Your task to perform on an android device: Go to Wikipedia Image 0: 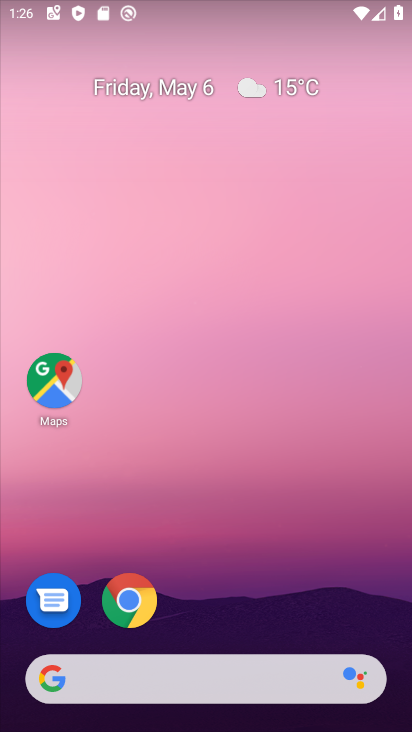
Step 0: drag from (338, 616) to (252, 127)
Your task to perform on an android device: Go to Wikipedia Image 1: 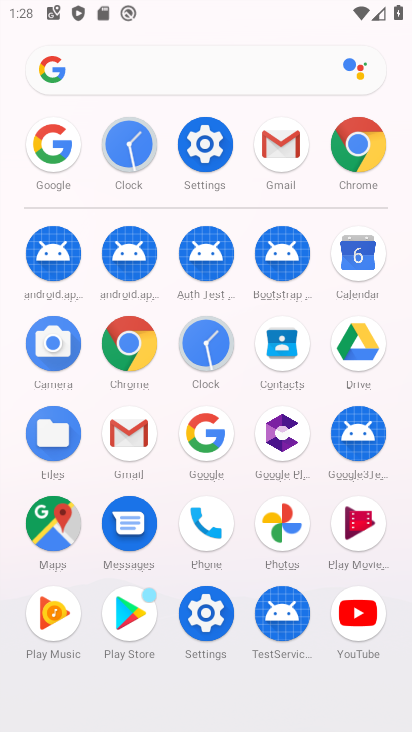
Step 1: click (193, 424)
Your task to perform on an android device: Go to Wikipedia Image 2: 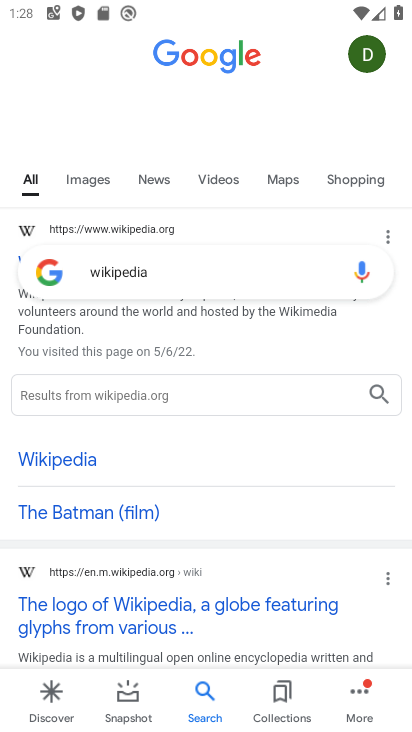
Step 2: click (14, 259)
Your task to perform on an android device: Go to Wikipedia Image 3: 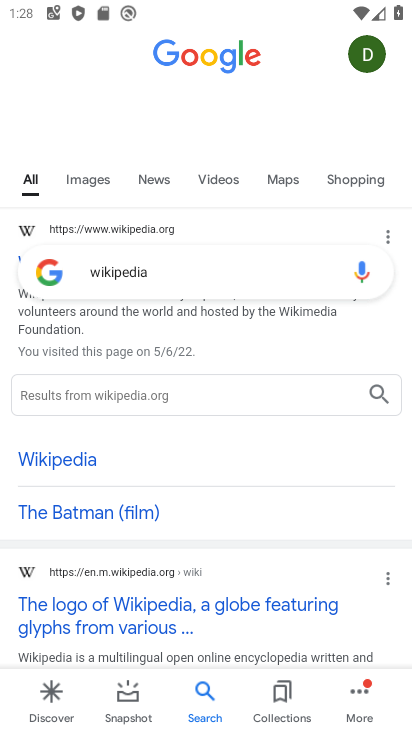
Step 3: click (103, 281)
Your task to perform on an android device: Go to Wikipedia Image 4: 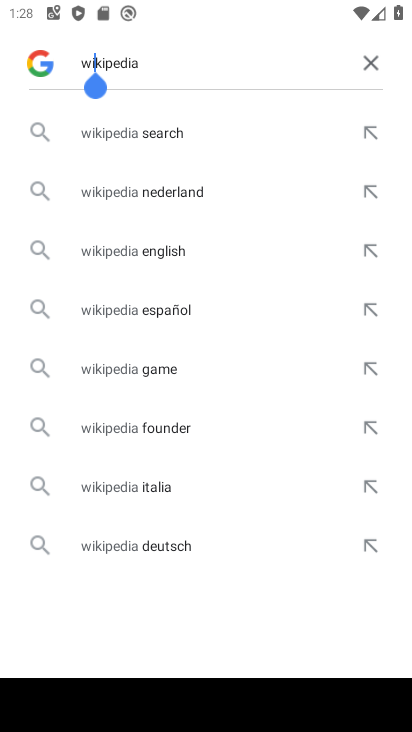
Step 4: click (163, 49)
Your task to perform on an android device: Go to Wikipedia Image 5: 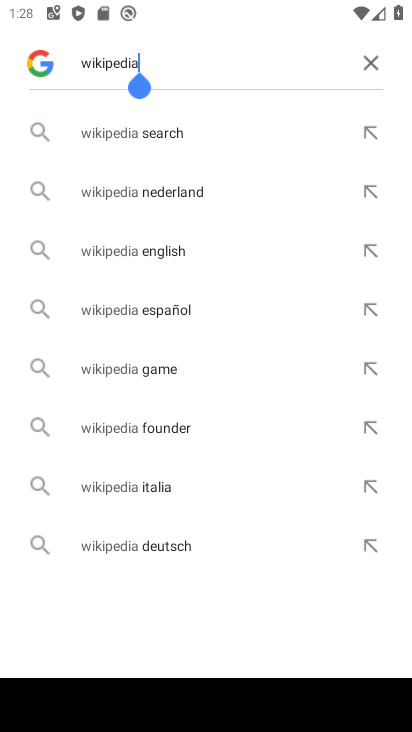
Step 5: click (160, 67)
Your task to perform on an android device: Go to Wikipedia Image 6: 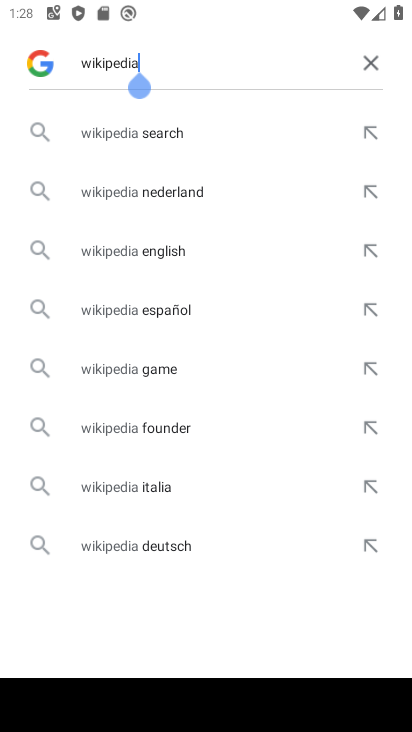
Step 6: click (95, 121)
Your task to perform on an android device: Go to Wikipedia Image 7: 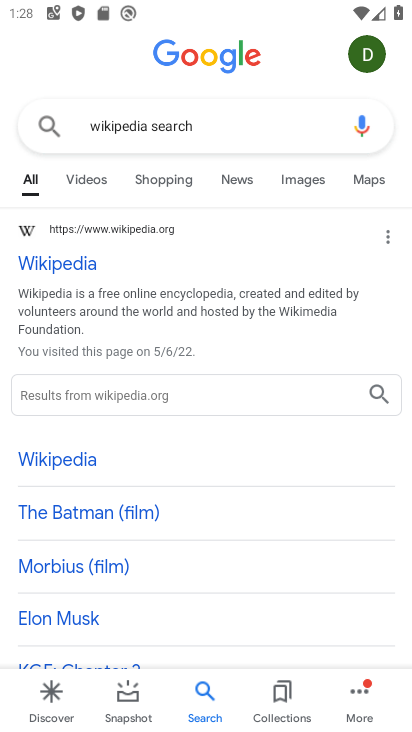
Step 7: click (91, 261)
Your task to perform on an android device: Go to Wikipedia Image 8: 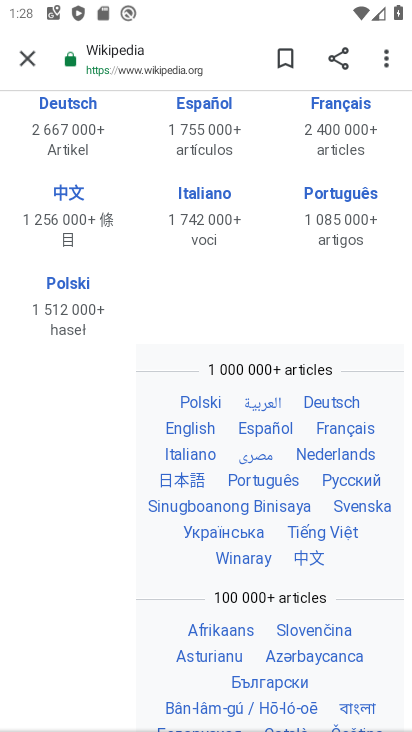
Step 8: task complete